Your task to perform on an android device: Open the web browser Image 0: 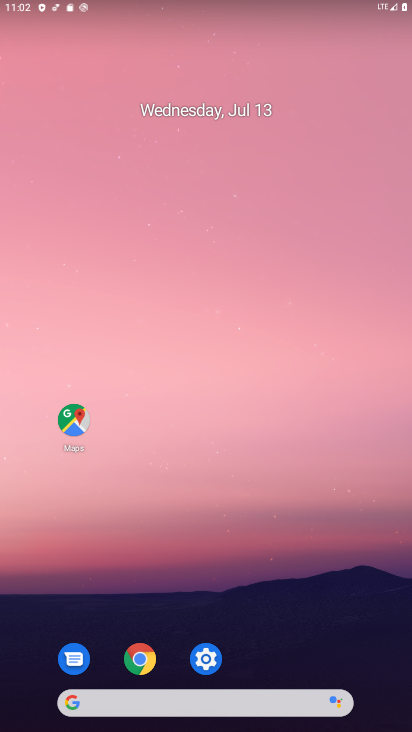
Step 0: drag from (249, 549) to (166, 78)
Your task to perform on an android device: Open the web browser Image 1: 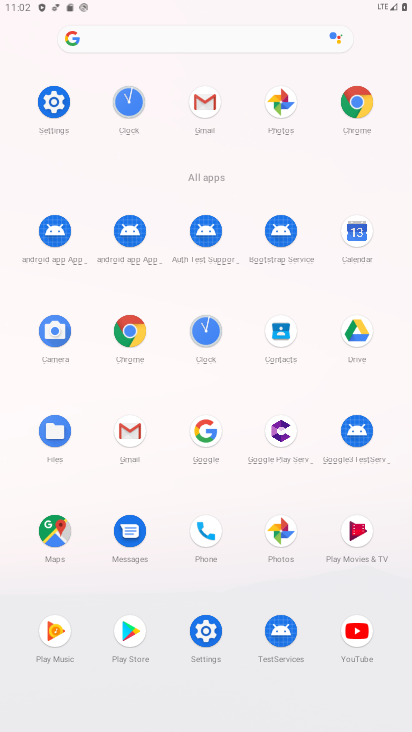
Step 1: click (372, 97)
Your task to perform on an android device: Open the web browser Image 2: 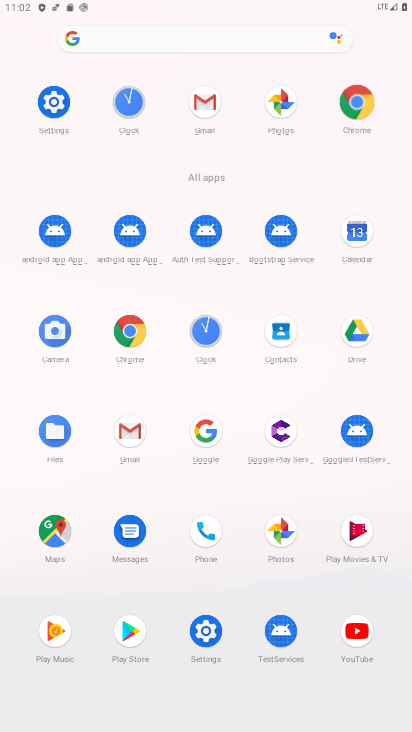
Step 2: click (371, 96)
Your task to perform on an android device: Open the web browser Image 3: 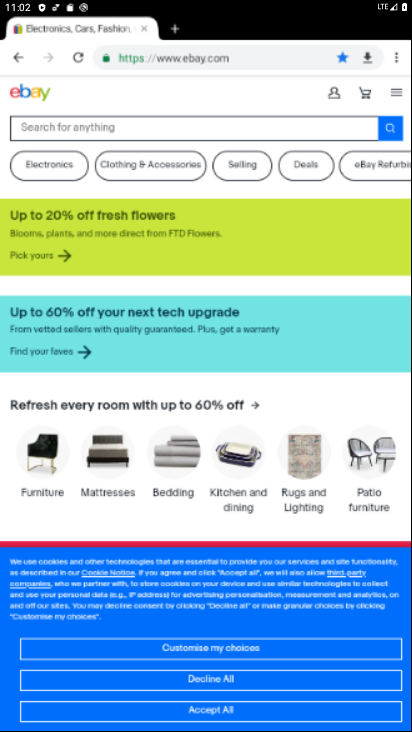
Step 3: click (369, 104)
Your task to perform on an android device: Open the web browser Image 4: 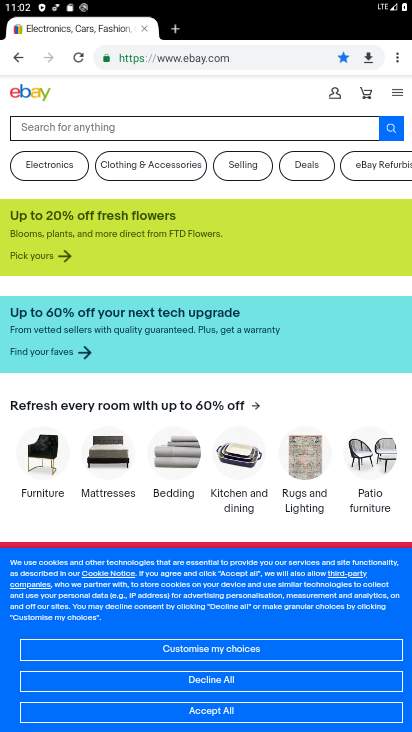
Step 4: drag from (397, 58) to (282, 59)
Your task to perform on an android device: Open the web browser Image 5: 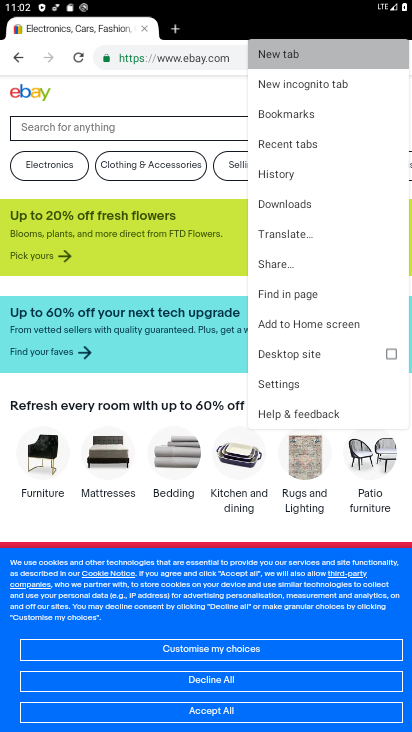
Step 5: click (282, 59)
Your task to perform on an android device: Open the web browser Image 6: 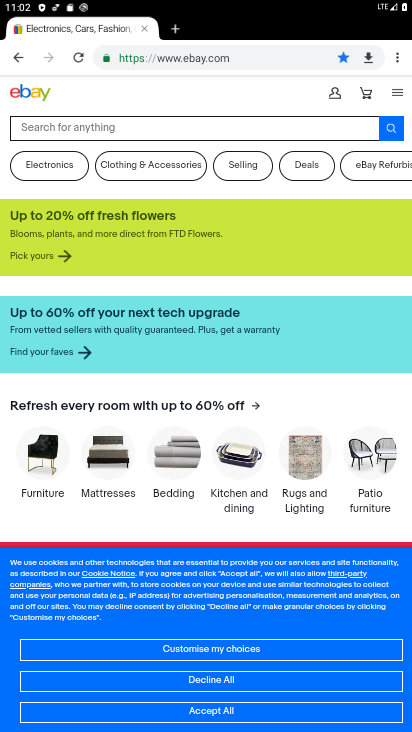
Step 6: click (282, 59)
Your task to perform on an android device: Open the web browser Image 7: 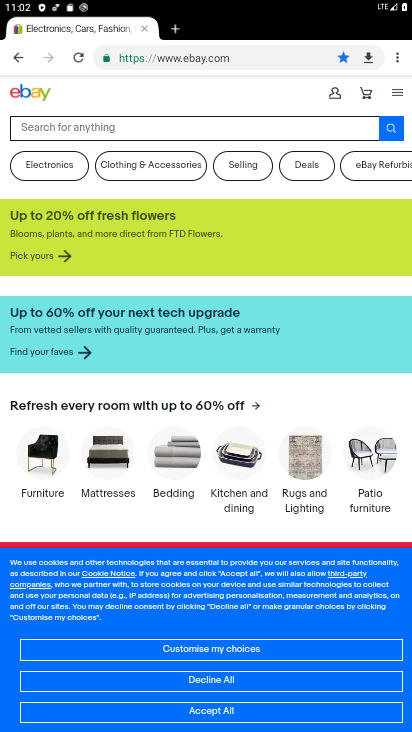
Step 7: click (282, 59)
Your task to perform on an android device: Open the web browser Image 8: 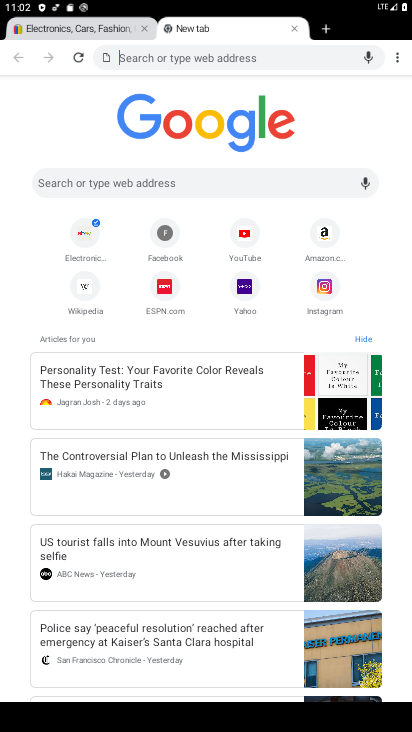
Step 8: task complete